Your task to perform on an android device: delete location history Image 0: 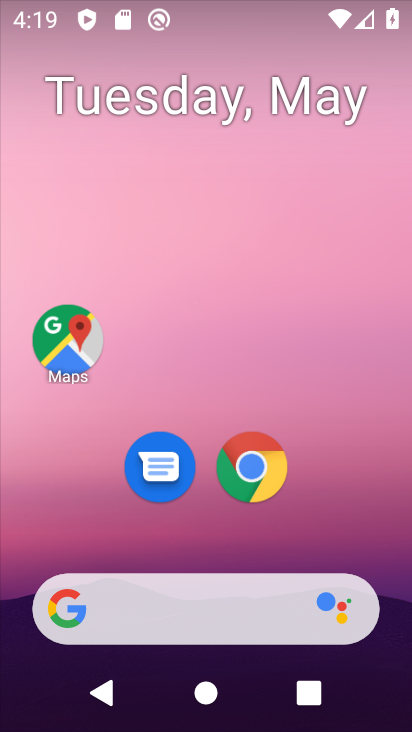
Step 0: drag from (86, 554) to (263, 43)
Your task to perform on an android device: delete location history Image 1: 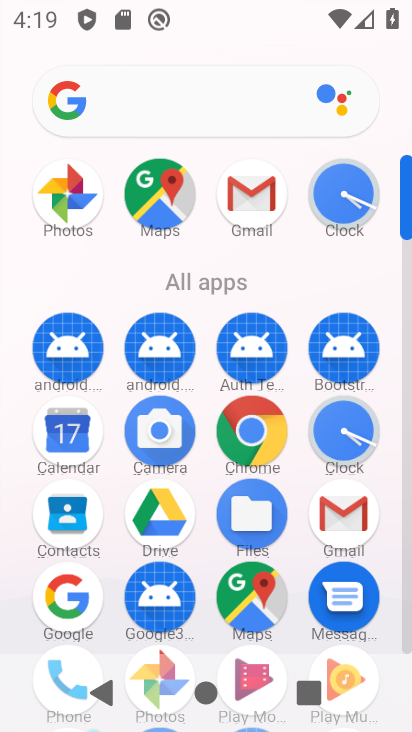
Step 1: drag from (218, 650) to (295, 353)
Your task to perform on an android device: delete location history Image 2: 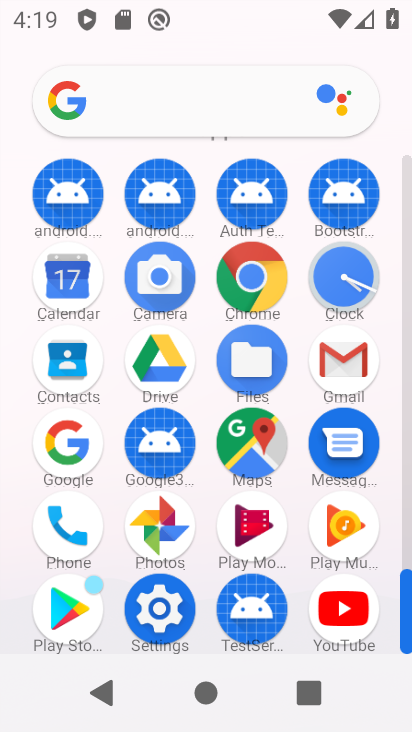
Step 2: click (159, 602)
Your task to perform on an android device: delete location history Image 3: 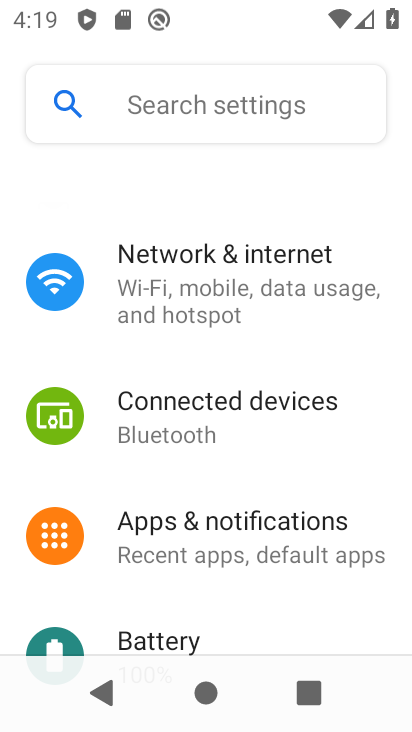
Step 3: drag from (194, 458) to (318, 120)
Your task to perform on an android device: delete location history Image 4: 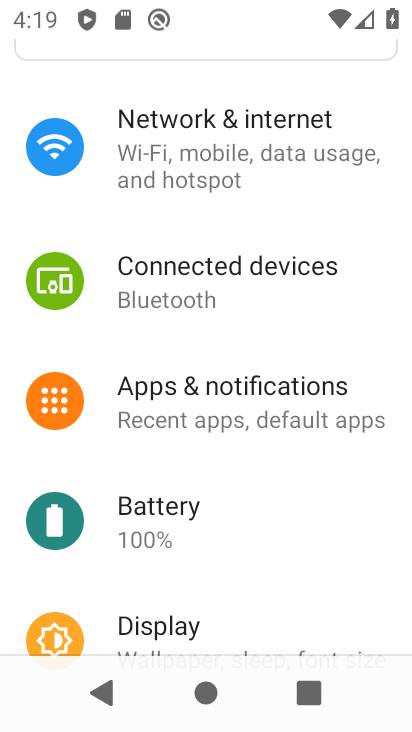
Step 4: drag from (252, 563) to (374, 169)
Your task to perform on an android device: delete location history Image 5: 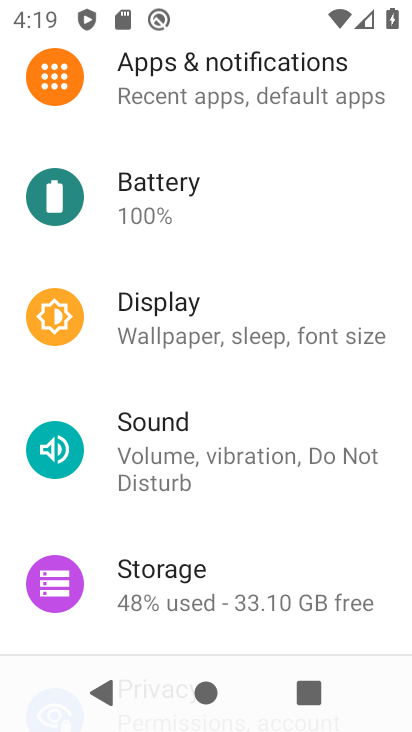
Step 5: drag from (270, 520) to (384, 118)
Your task to perform on an android device: delete location history Image 6: 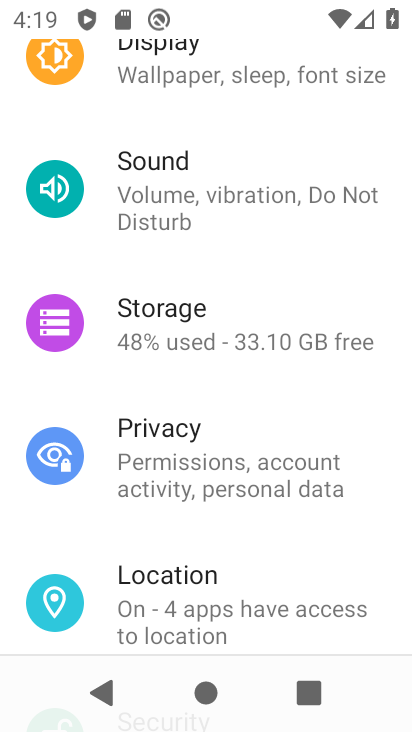
Step 6: click (190, 609)
Your task to perform on an android device: delete location history Image 7: 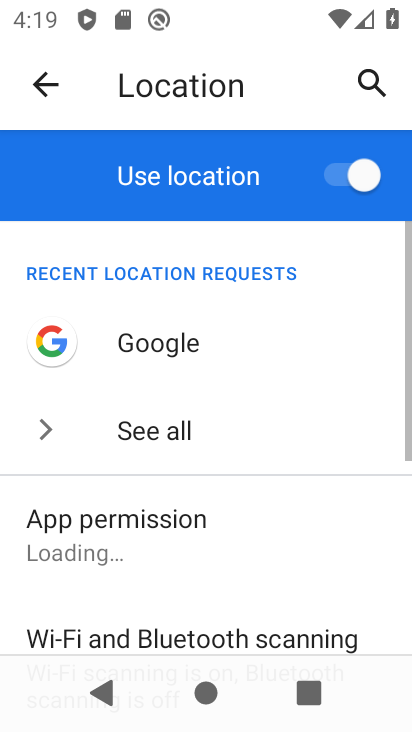
Step 7: drag from (252, 613) to (373, 123)
Your task to perform on an android device: delete location history Image 8: 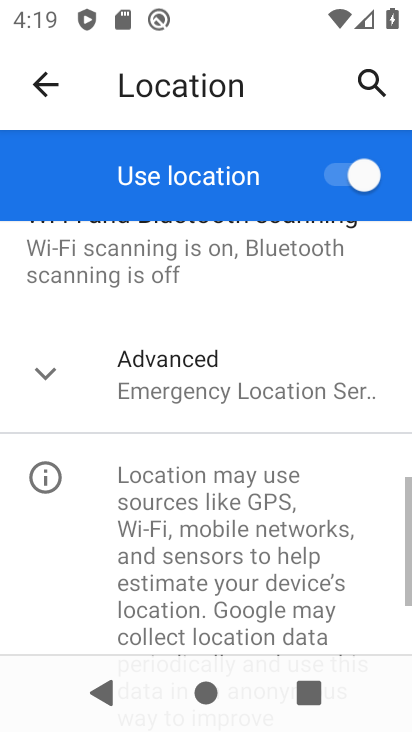
Step 8: click (247, 393)
Your task to perform on an android device: delete location history Image 9: 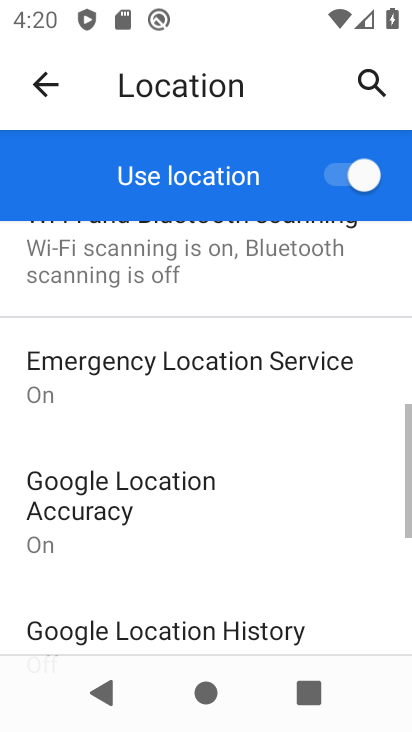
Step 9: drag from (183, 561) to (270, 291)
Your task to perform on an android device: delete location history Image 10: 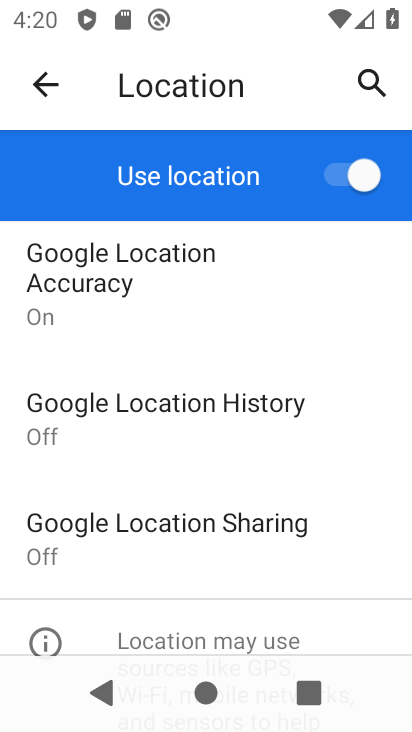
Step 10: click (261, 425)
Your task to perform on an android device: delete location history Image 11: 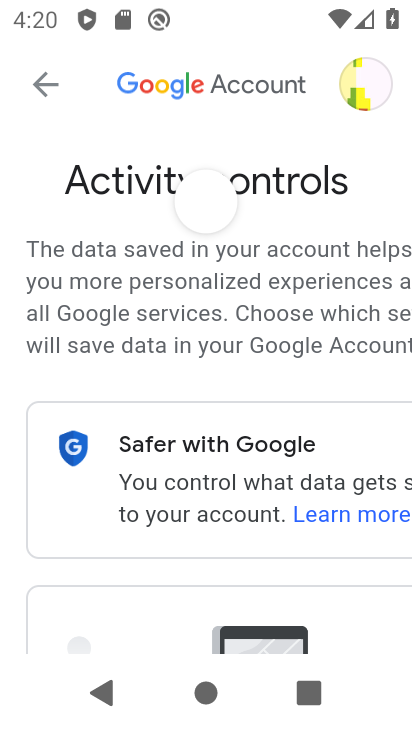
Step 11: drag from (151, 572) to (335, 33)
Your task to perform on an android device: delete location history Image 12: 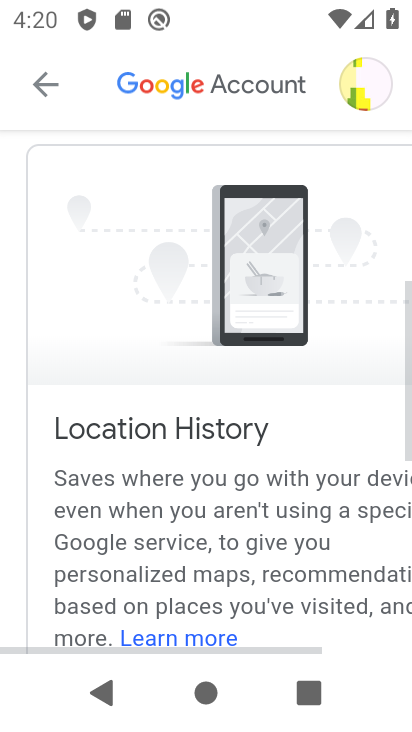
Step 12: drag from (262, 523) to (324, 180)
Your task to perform on an android device: delete location history Image 13: 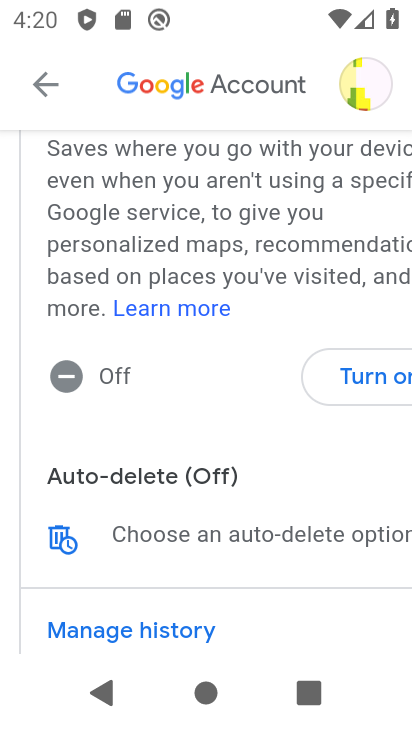
Step 13: drag from (160, 597) to (262, 223)
Your task to perform on an android device: delete location history Image 14: 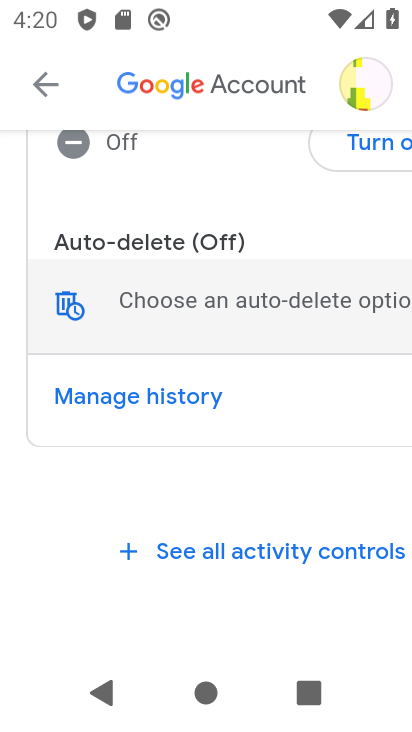
Step 14: click (197, 393)
Your task to perform on an android device: delete location history Image 15: 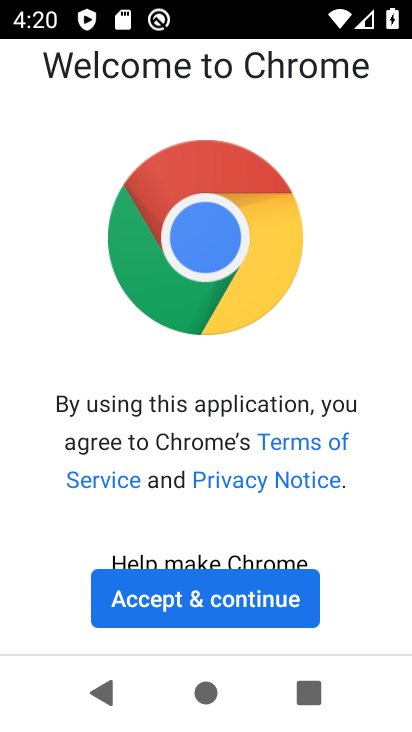
Step 15: click (206, 558)
Your task to perform on an android device: delete location history Image 16: 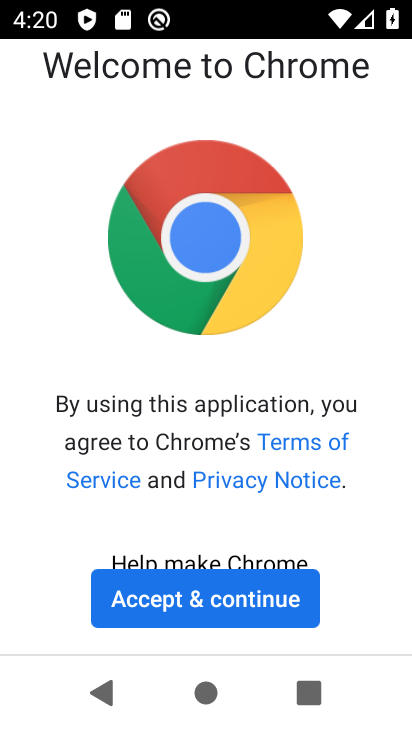
Step 16: click (247, 599)
Your task to perform on an android device: delete location history Image 17: 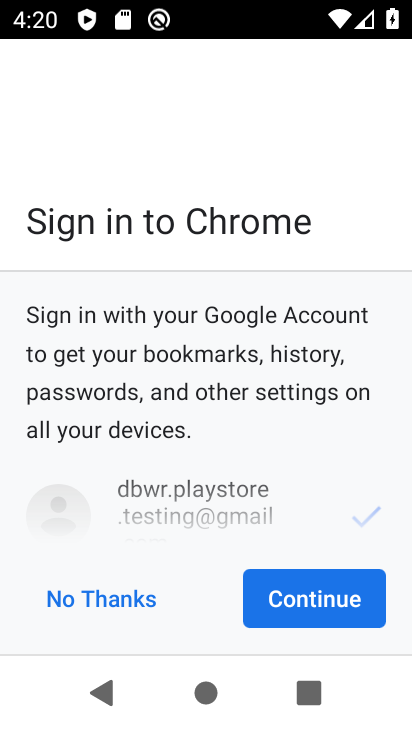
Step 17: click (337, 585)
Your task to perform on an android device: delete location history Image 18: 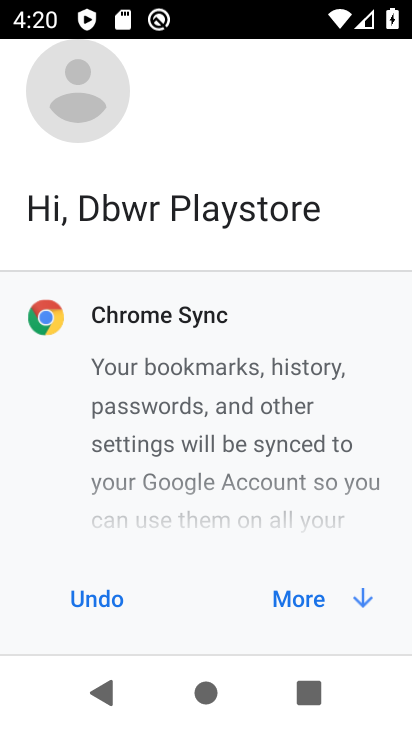
Step 18: click (332, 615)
Your task to perform on an android device: delete location history Image 19: 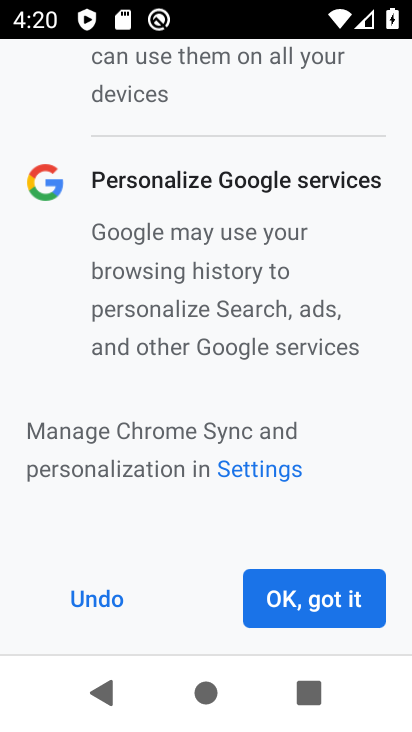
Step 19: click (332, 610)
Your task to perform on an android device: delete location history Image 20: 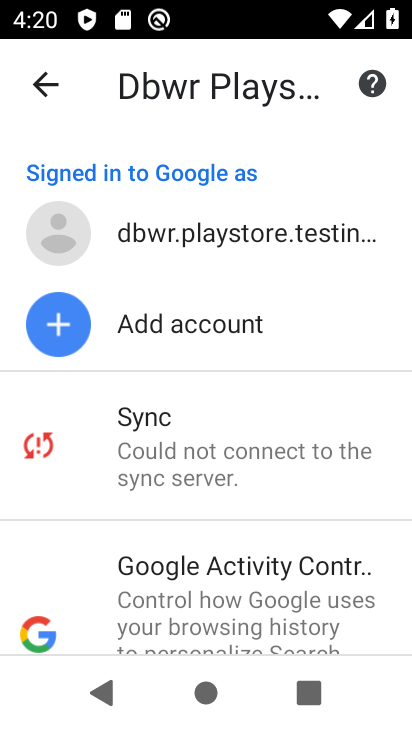
Step 20: press back button
Your task to perform on an android device: delete location history Image 21: 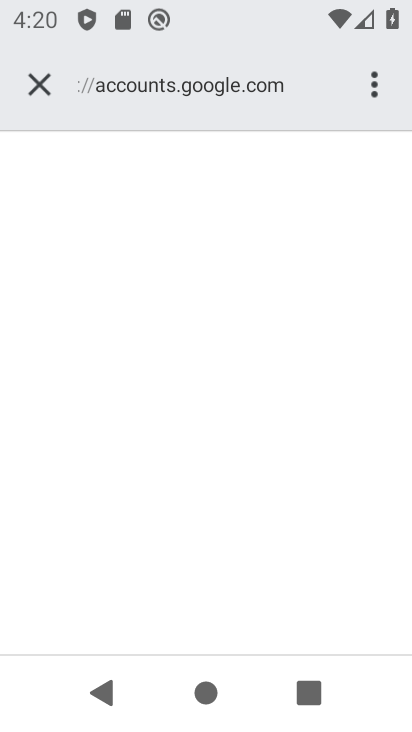
Step 21: press back button
Your task to perform on an android device: delete location history Image 22: 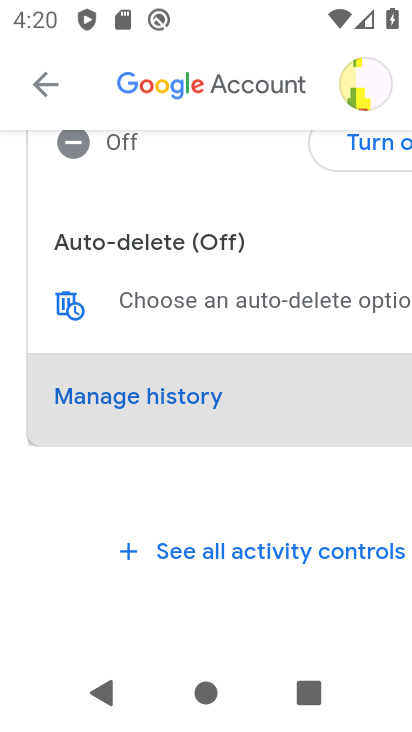
Step 22: drag from (340, 379) to (179, 371)
Your task to perform on an android device: delete location history Image 23: 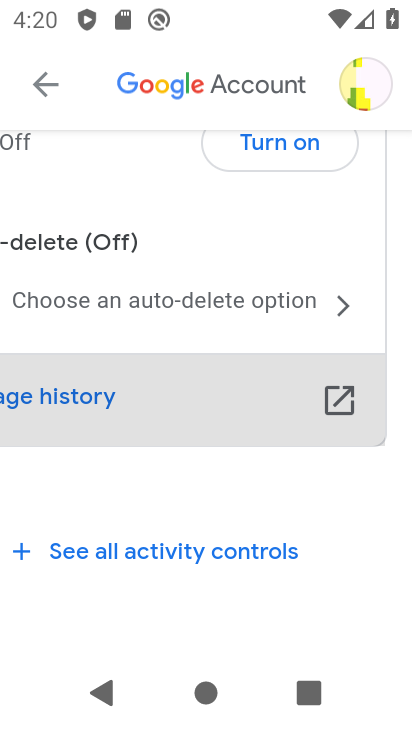
Step 23: drag from (179, 398) to (292, 370)
Your task to perform on an android device: delete location history Image 24: 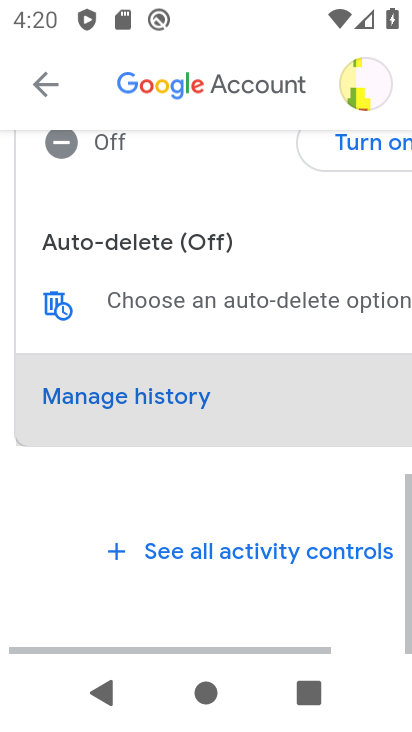
Step 24: click (141, 397)
Your task to perform on an android device: delete location history Image 25: 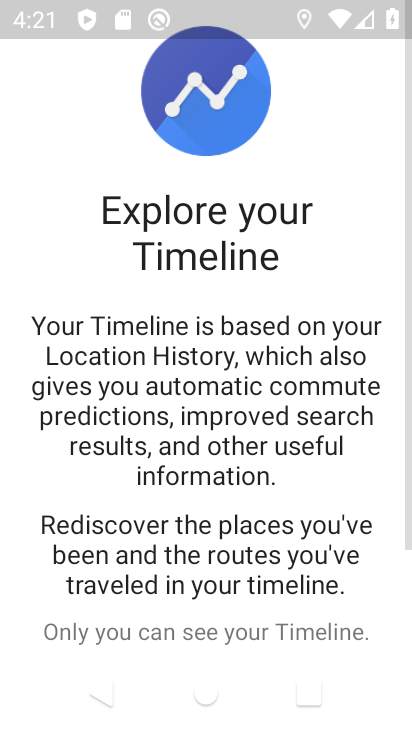
Step 25: drag from (205, 635) to (373, 120)
Your task to perform on an android device: delete location history Image 26: 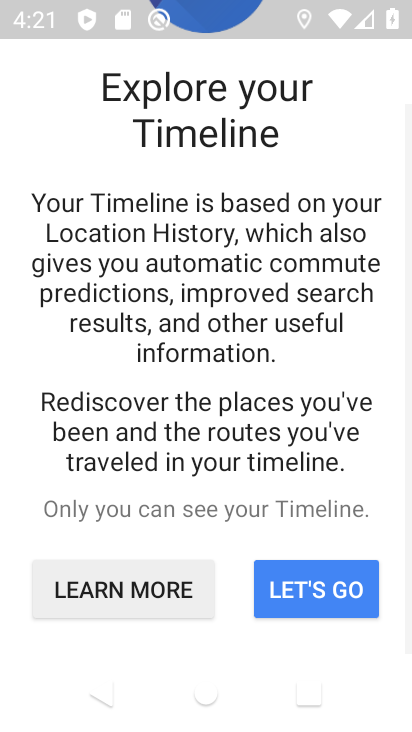
Step 26: click (300, 610)
Your task to perform on an android device: delete location history Image 27: 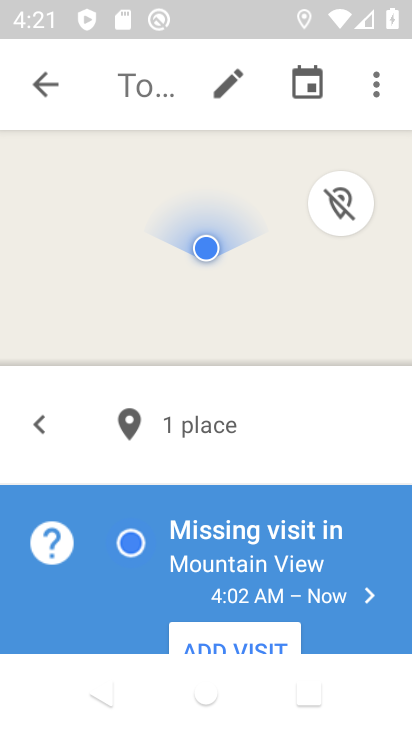
Step 27: click (374, 88)
Your task to perform on an android device: delete location history Image 28: 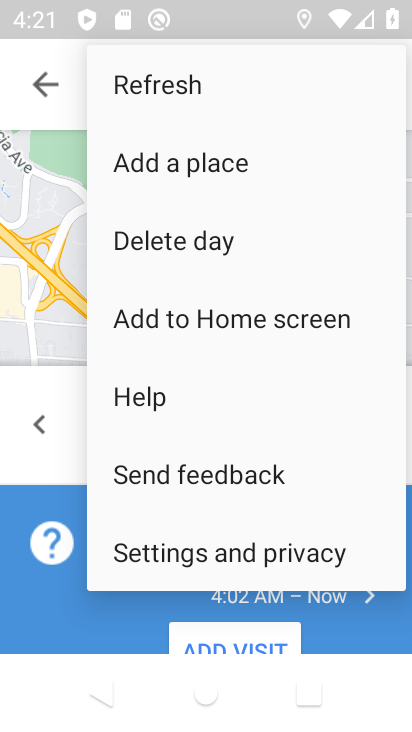
Step 28: click (222, 241)
Your task to perform on an android device: delete location history Image 29: 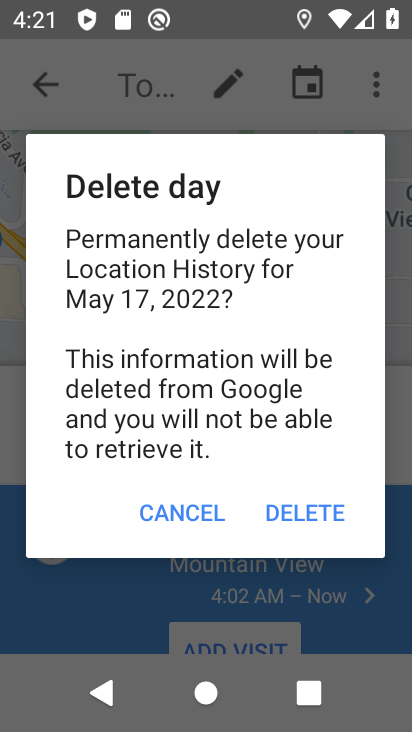
Step 29: click (344, 545)
Your task to perform on an android device: delete location history Image 30: 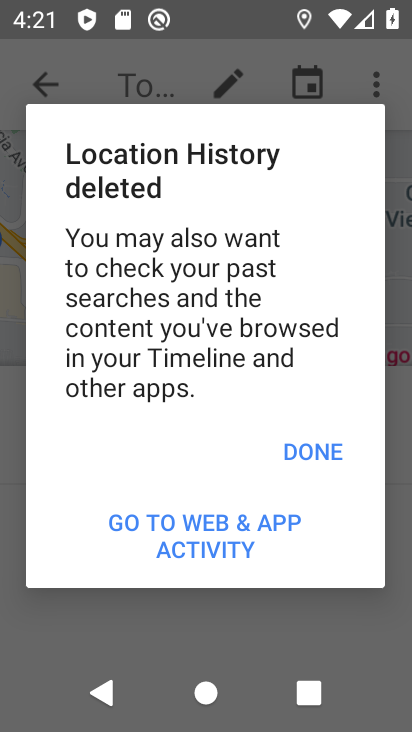
Step 30: click (325, 457)
Your task to perform on an android device: delete location history Image 31: 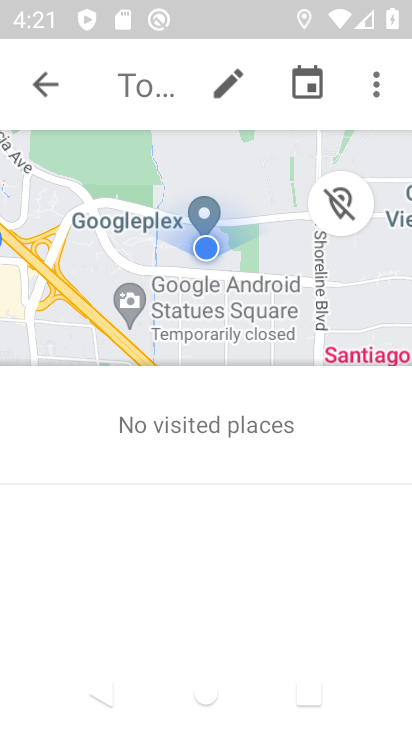
Step 31: task complete